Your task to perform on an android device: What's the weather going to be this weekend? Image 0: 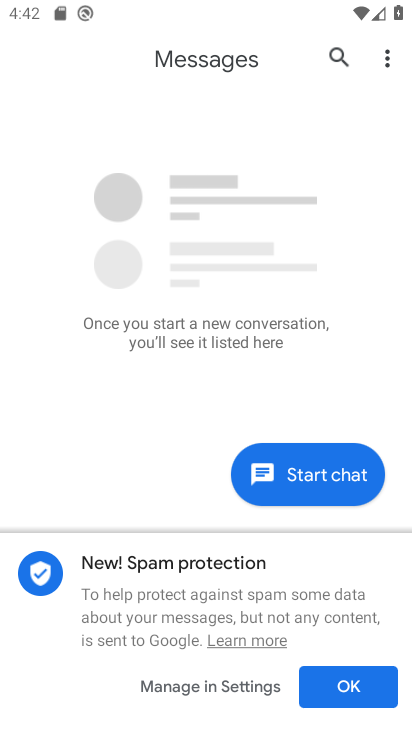
Step 0: press home button
Your task to perform on an android device: What's the weather going to be this weekend? Image 1: 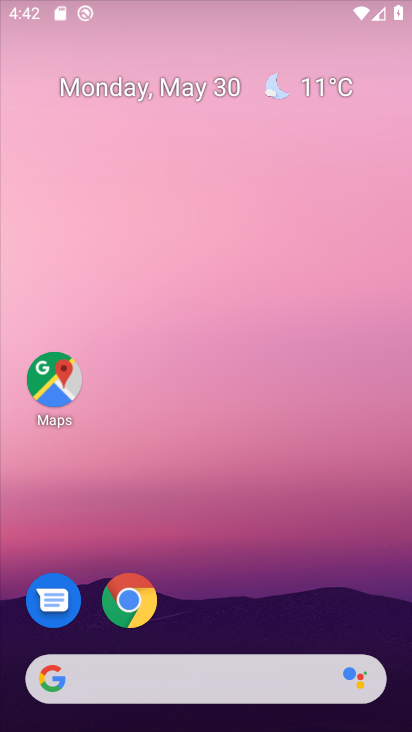
Step 1: drag from (323, 586) to (374, 5)
Your task to perform on an android device: What's the weather going to be this weekend? Image 2: 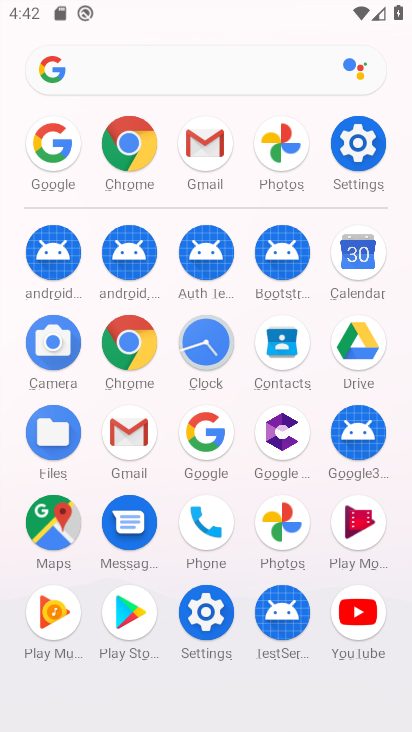
Step 2: press home button
Your task to perform on an android device: What's the weather going to be this weekend? Image 3: 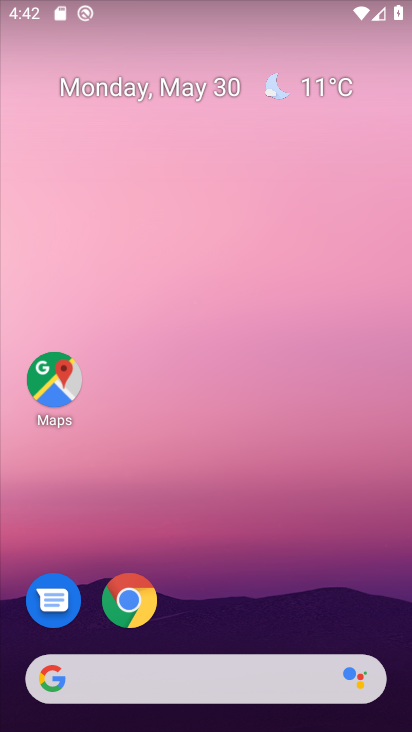
Step 3: click (311, 82)
Your task to perform on an android device: What's the weather going to be this weekend? Image 4: 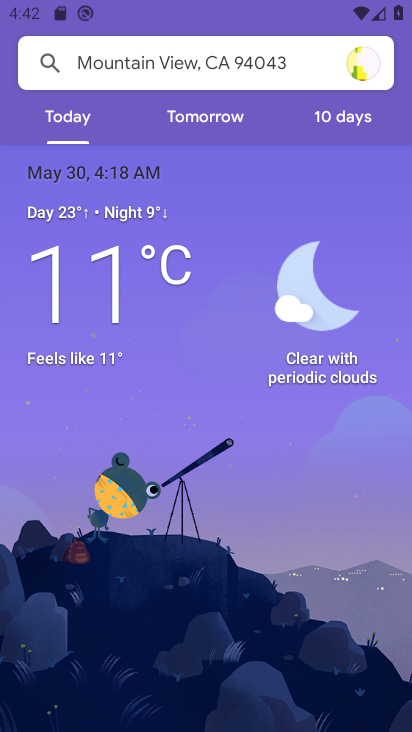
Step 4: click (346, 119)
Your task to perform on an android device: What's the weather going to be this weekend? Image 5: 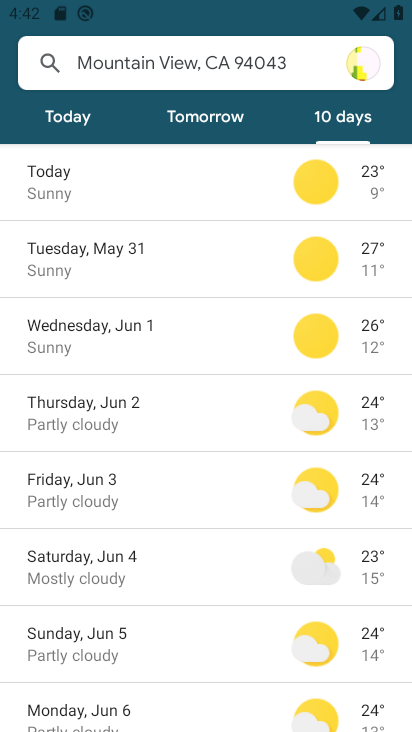
Step 5: task complete